Your task to perform on an android device: Open calendar and show me the first week of next month Image 0: 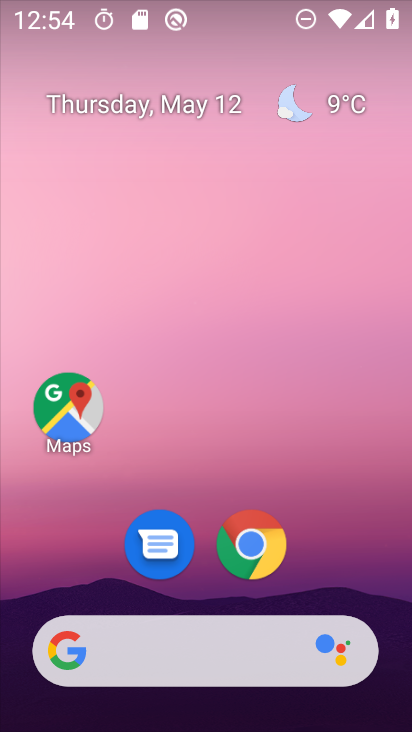
Step 0: drag from (204, 724) to (253, 125)
Your task to perform on an android device: Open calendar and show me the first week of next month Image 1: 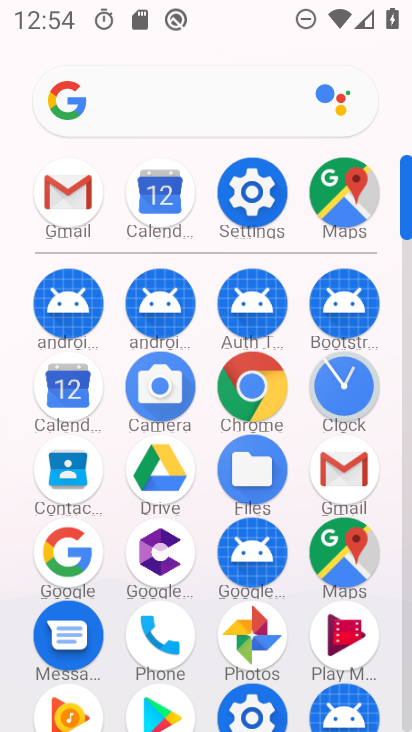
Step 1: click (67, 383)
Your task to perform on an android device: Open calendar and show me the first week of next month Image 2: 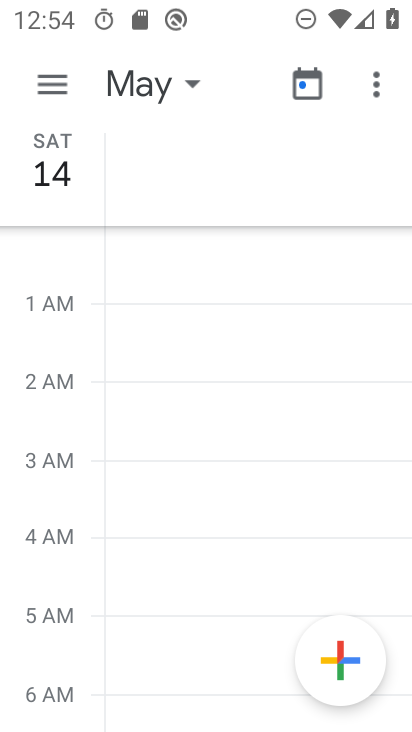
Step 2: click (149, 84)
Your task to perform on an android device: Open calendar and show me the first week of next month Image 3: 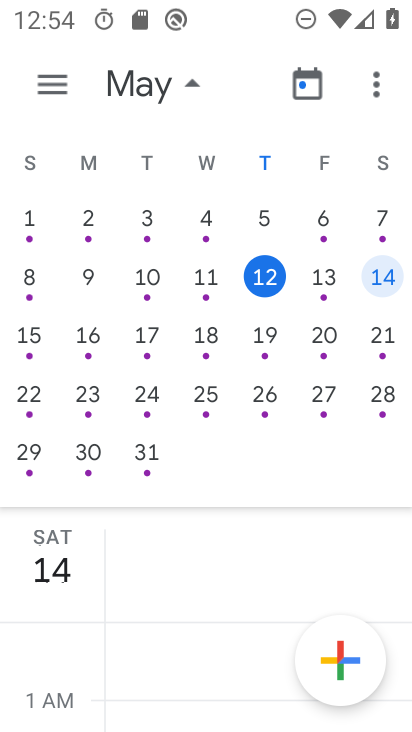
Step 3: drag from (365, 279) to (0, 256)
Your task to perform on an android device: Open calendar and show me the first week of next month Image 4: 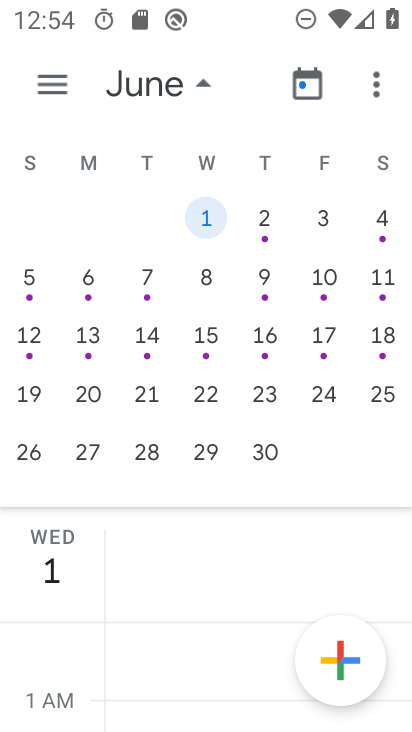
Step 4: click (86, 280)
Your task to perform on an android device: Open calendar and show me the first week of next month Image 5: 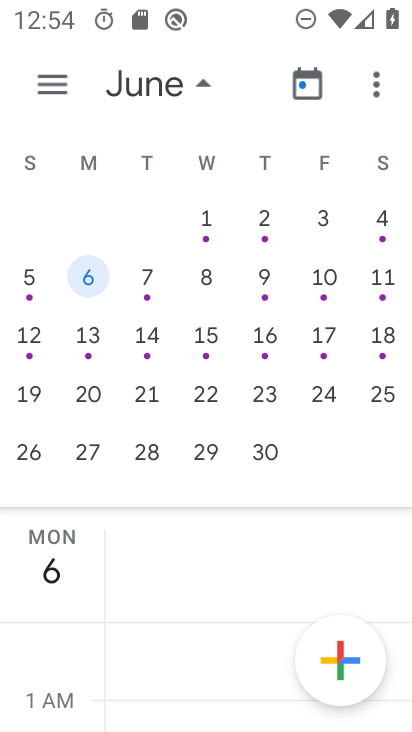
Step 5: click (45, 88)
Your task to perform on an android device: Open calendar and show me the first week of next month Image 6: 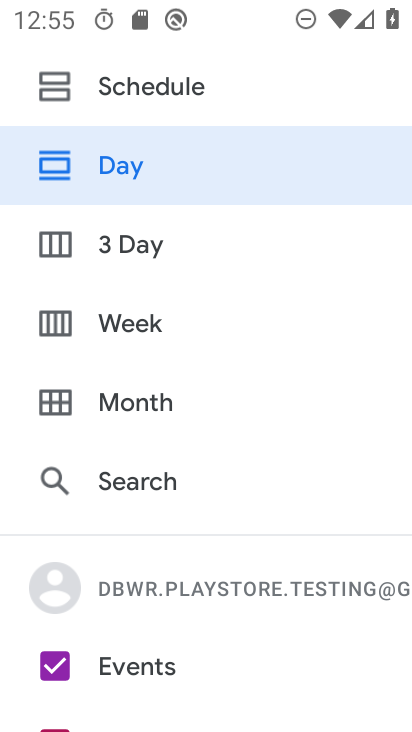
Step 6: click (137, 320)
Your task to perform on an android device: Open calendar and show me the first week of next month Image 7: 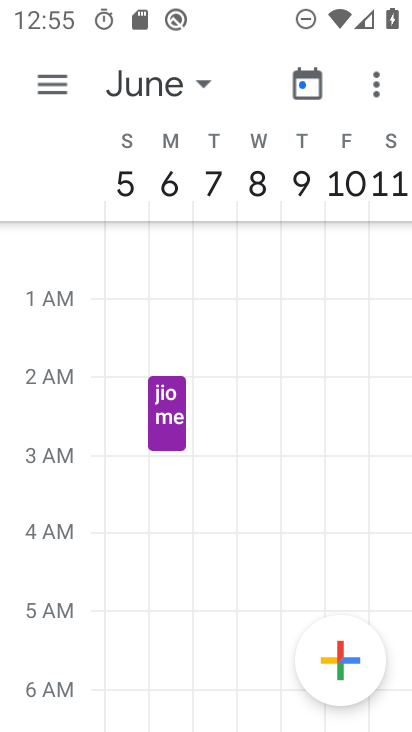
Step 7: task complete